Your task to perform on an android device: turn off wifi Image 0: 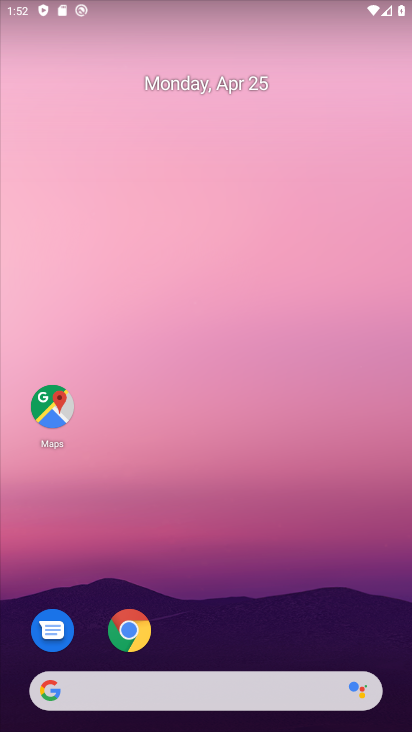
Step 0: drag from (349, 619) to (341, 59)
Your task to perform on an android device: turn off wifi Image 1: 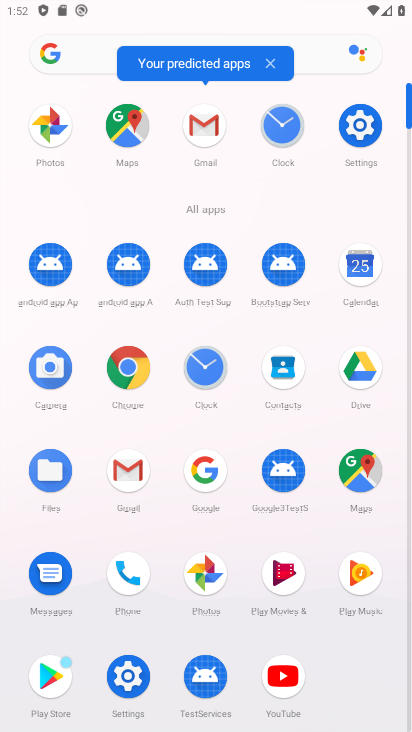
Step 1: click (364, 125)
Your task to perform on an android device: turn off wifi Image 2: 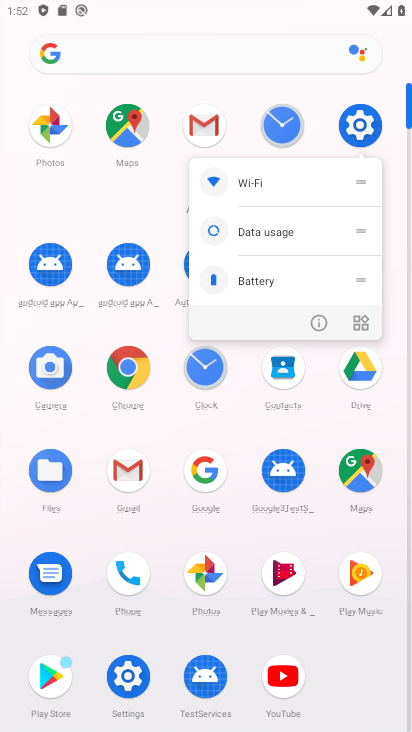
Step 2: click (364, 125)
Your task to perform on an android device: turn off wifi Image 3: 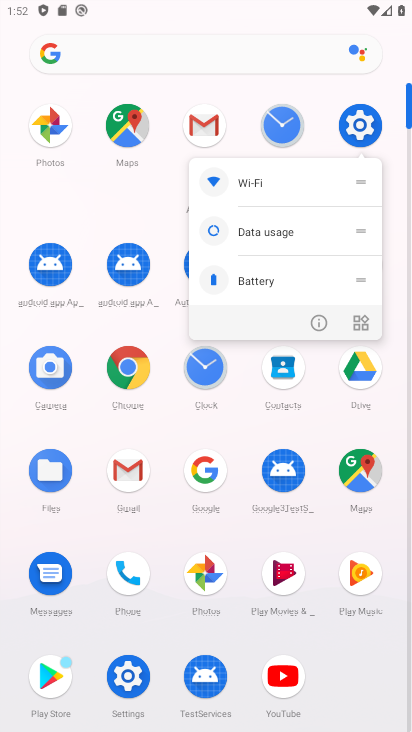
Step 3: click (364, 125)
Your task to perform on an android device: turn off wifi Image 4: 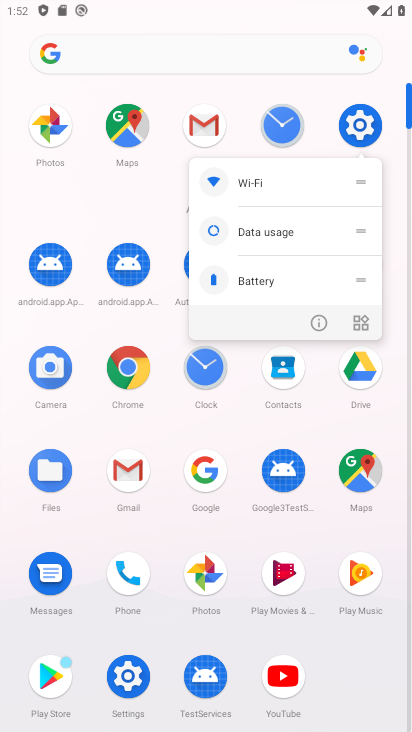
Step 4: click (364, 125)
Your task to perform on an android device: turn off wifi Image 5: 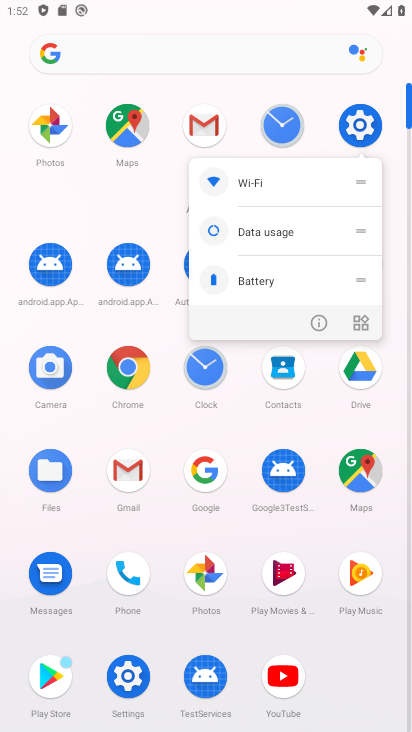
Step 5: click (364, 125)
Your task to perform on an android device: turn off wifi Image 6: 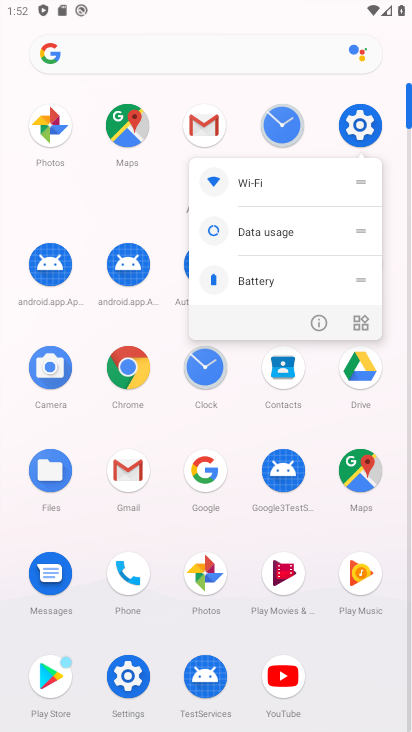
Step 6: click (264, 186)
Your task to perform on an android device: turn off wifi Image 7: 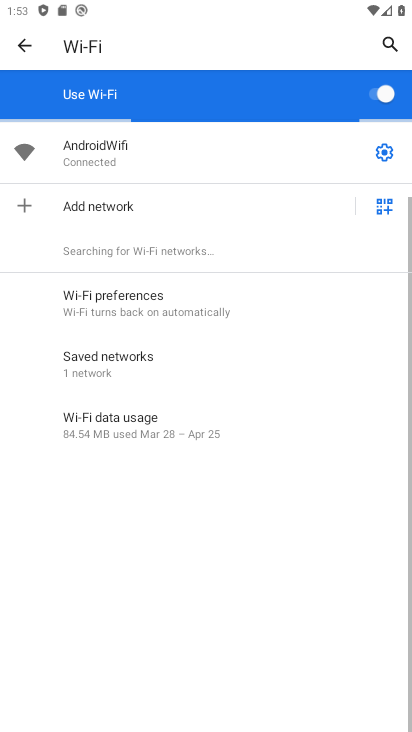
Step 7: click (382, 99)
Your task to perform on an android device: turn off wifi Image 8: 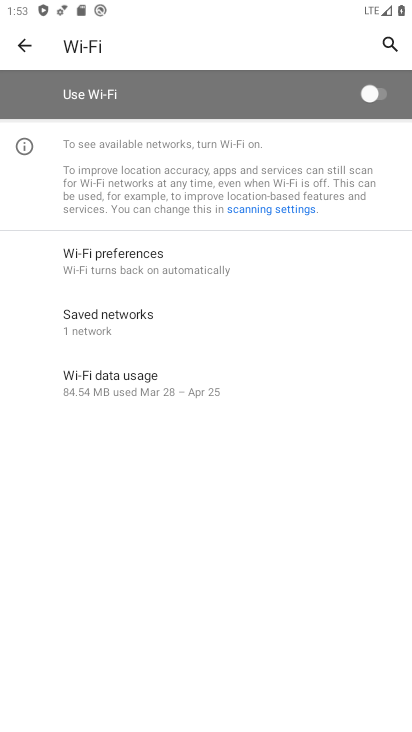
Step 8: task complete